Your task to perform on an android device: Open battery settings Image 0: 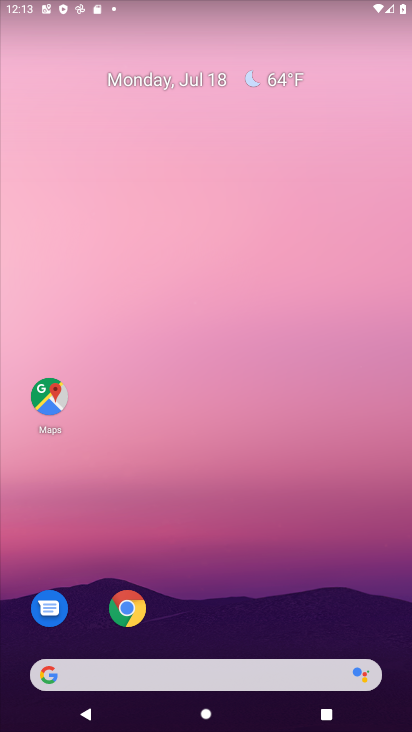
Step 0: drag from (374, 605) to (198, 69)
Your task to perform on an android device: Open battery settings Image 1: 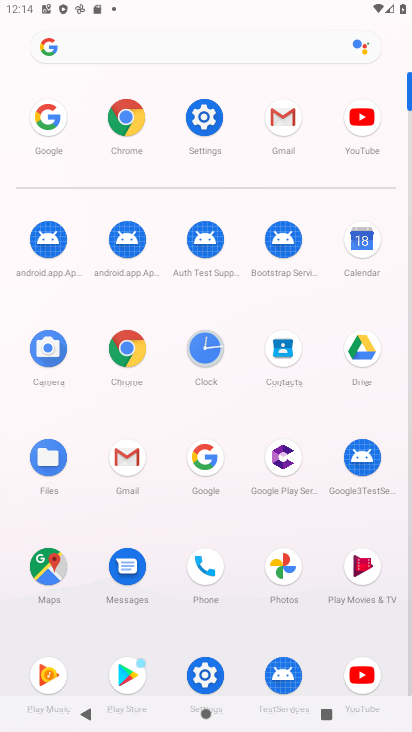
Step 1: click (204, 672)
Your task to perform on an android device: Open battery settings Image 2: 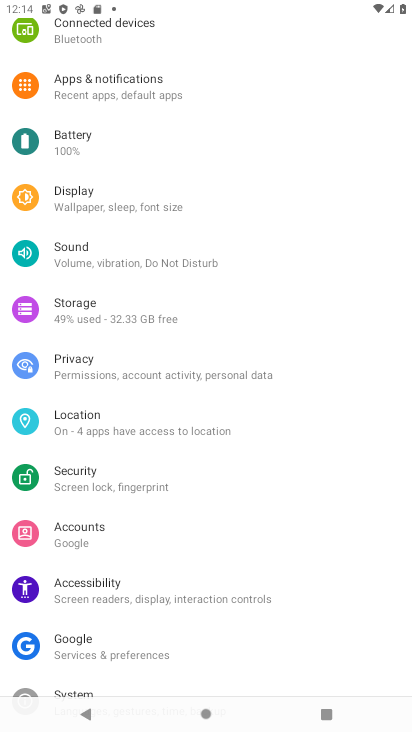
Step 2: click (90, 152)
Your task to perform on an android device: Open battery settings Image 3: 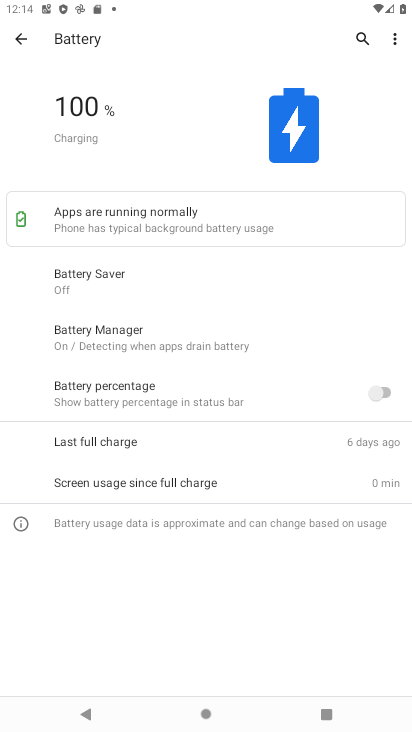
Step 3: task complete